Your task to perform on an android device: Add "macbook pro 13 inch" to the cart on costco, then select checkout. Image 0: 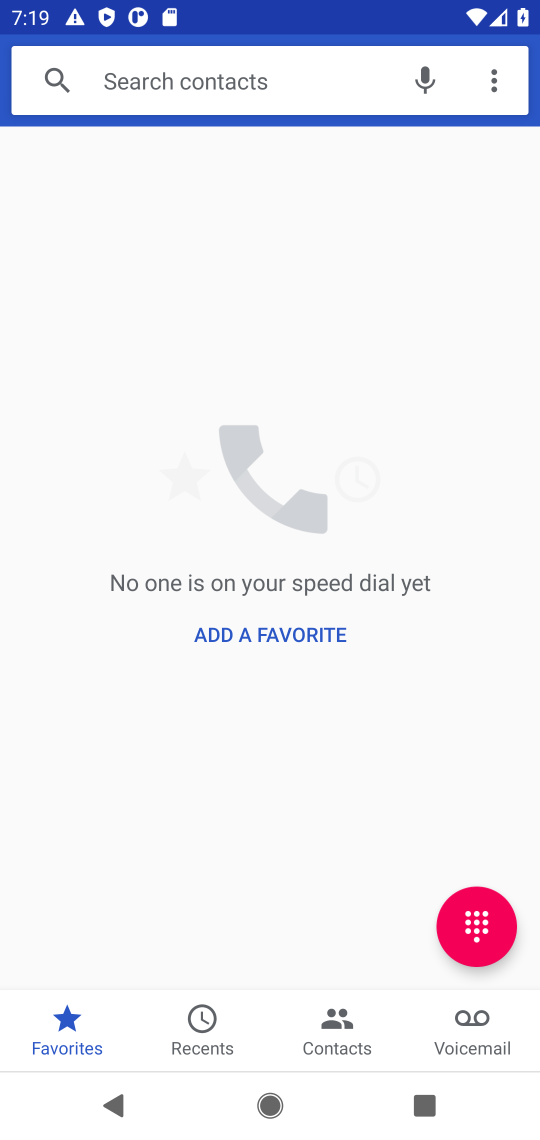
Step 0: press home button
Your task to perform on an android device: Add "macbook pro 13 inch" to the cart on costco, then select checkout. Image 1: 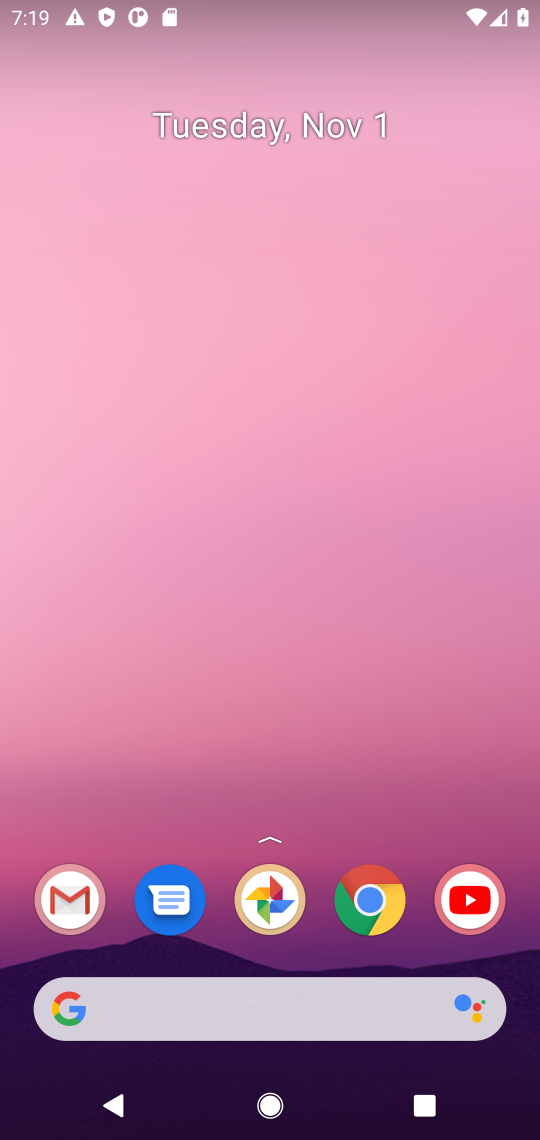
Step 1: drag from (328, 961) to (286, 100)
Your task to perform on an android device: Add "macbook pro 13 inch" to the cart on costco, then select checkout. Image 2: 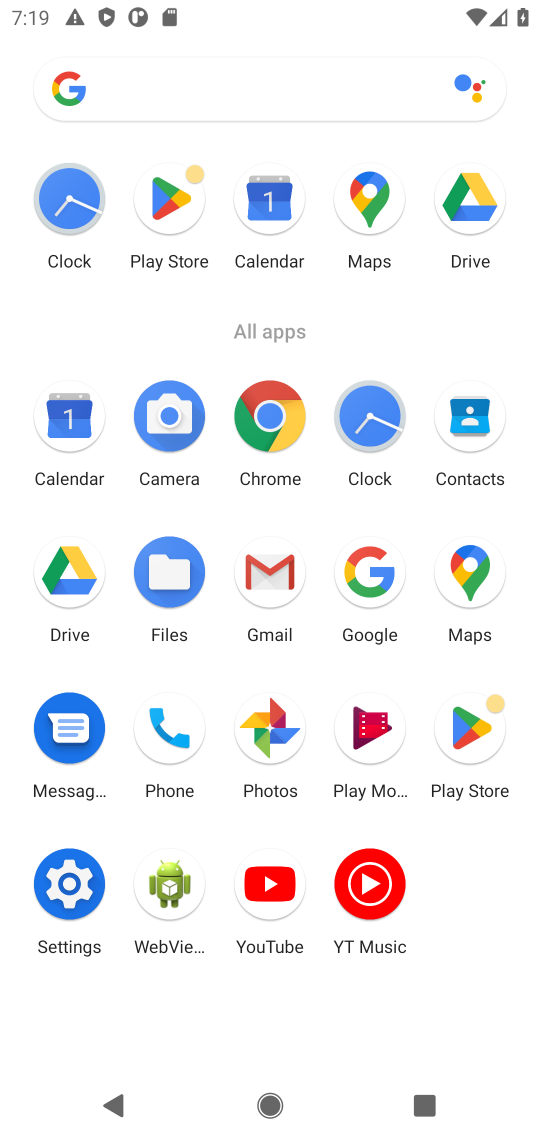
Step 2: click (277, 413)
Your task to perform on an android device: Add "macbook pro 13 inch" to the cart on costco, then select checkout. Image 3: 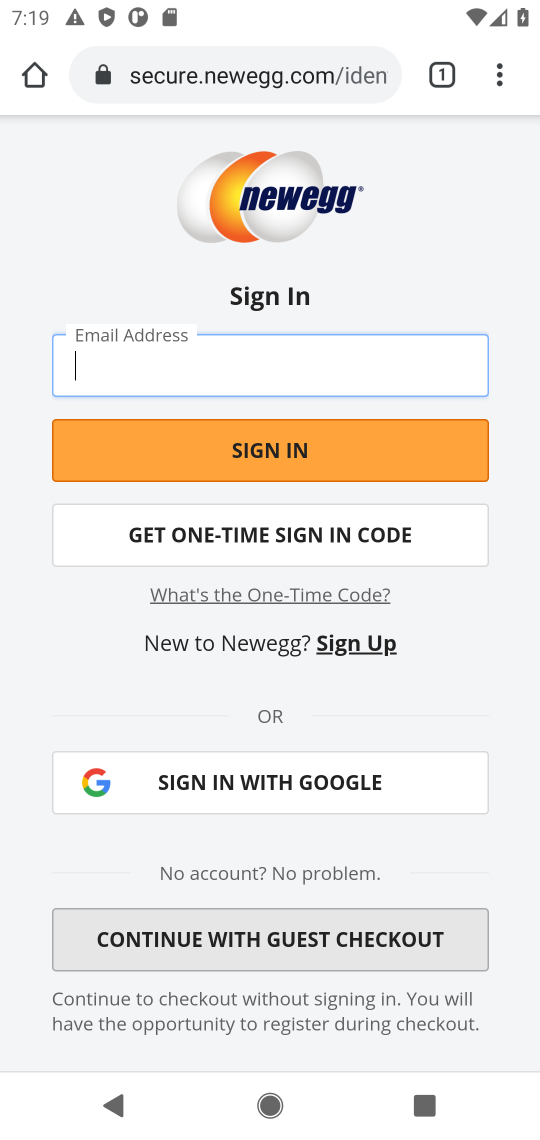
Step 3: click (358, 80)
Your task to perform on an android device: Add "macbook pro 13 inch" to the cart on costco, then select checkout. Image 4: 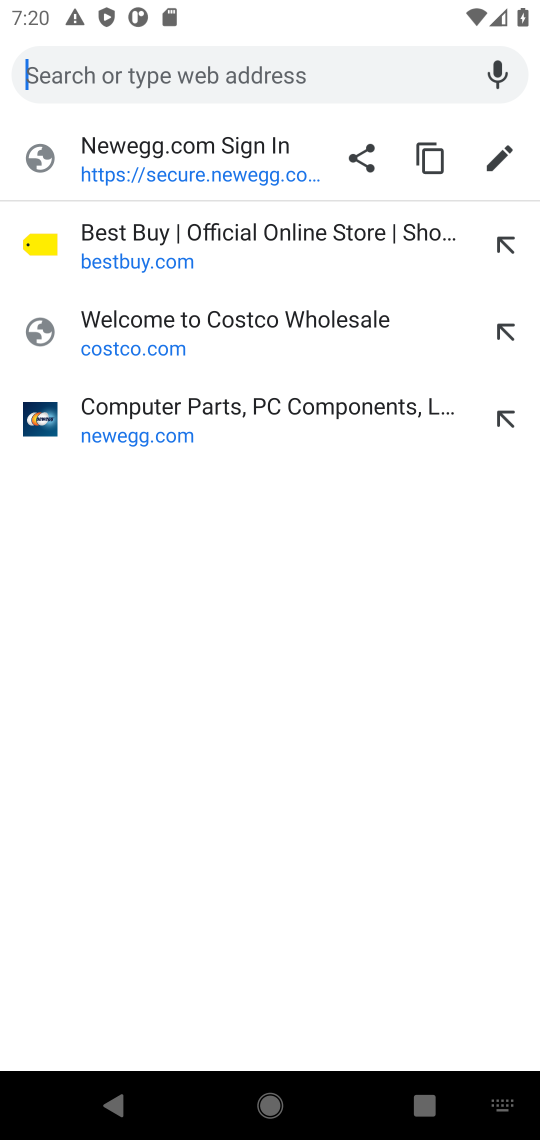
Step 4: type "costco.com"
Your task to perform on an android device: Add "macbook pro 13 inch" to the cart on costco, then select checkout. Image 5: 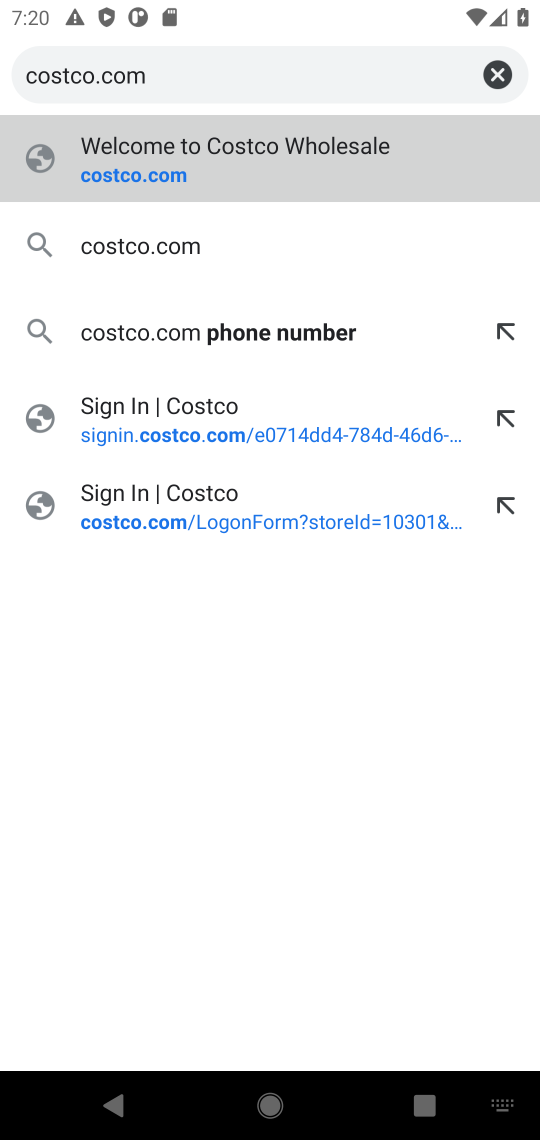
Step 5: press enter
Your task to perform on an android device: Add "macbook pro 13 inch" to the cart on costco, then select checkout. Image 6: 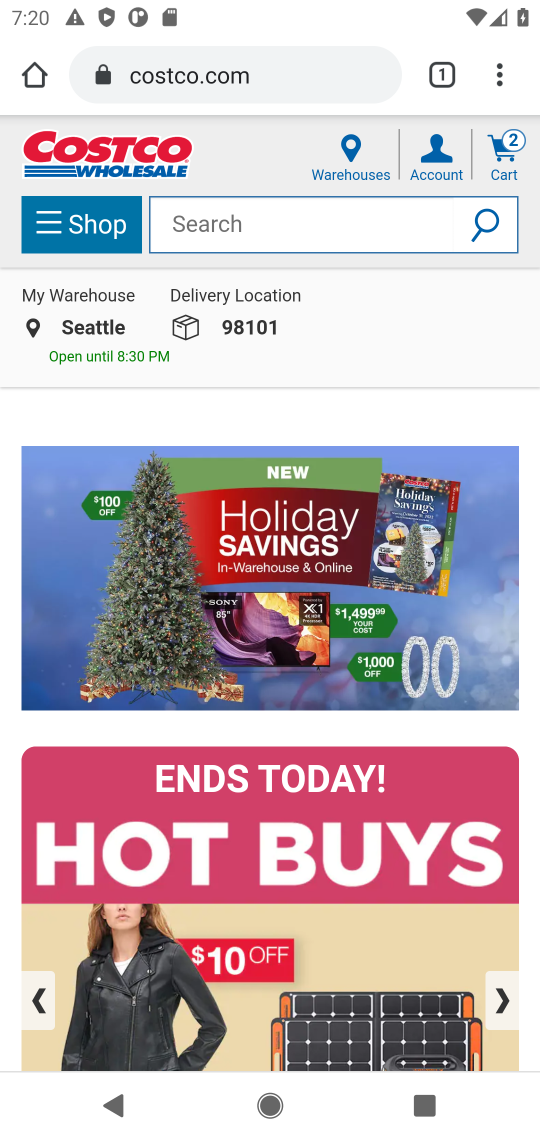
Step 6: click (325, 223)
Your task to perform on an android device: Add "macbook pro 13 inch" to the cart on costco, then select checkout. Image 7: 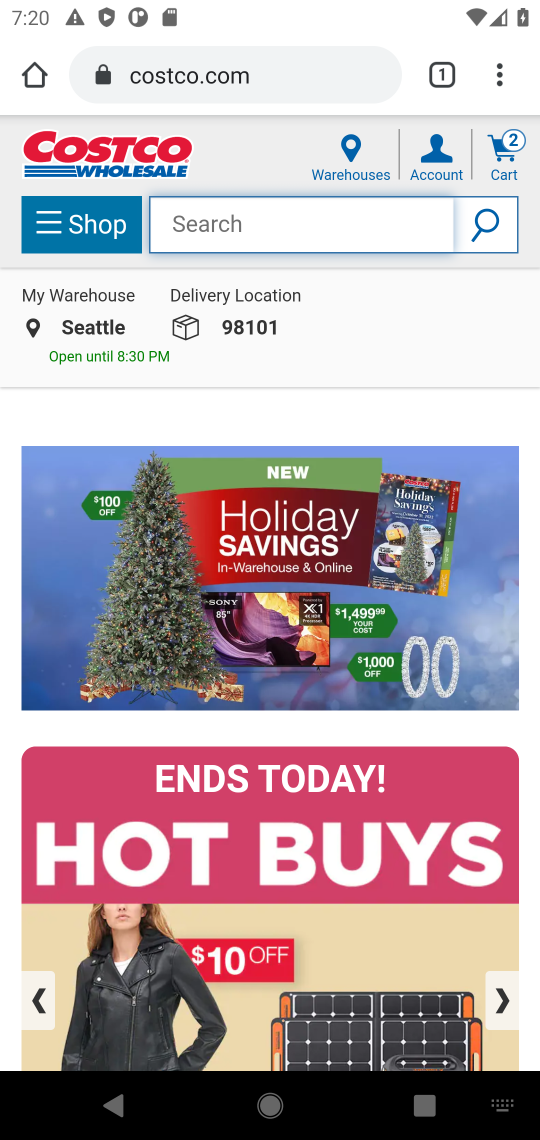
Step 7: type "macbook pro 13 inch"
Your task to perform on an android device: Add "macbook pro 13 inch" to the cart on costco, then select checkout. Image 8: 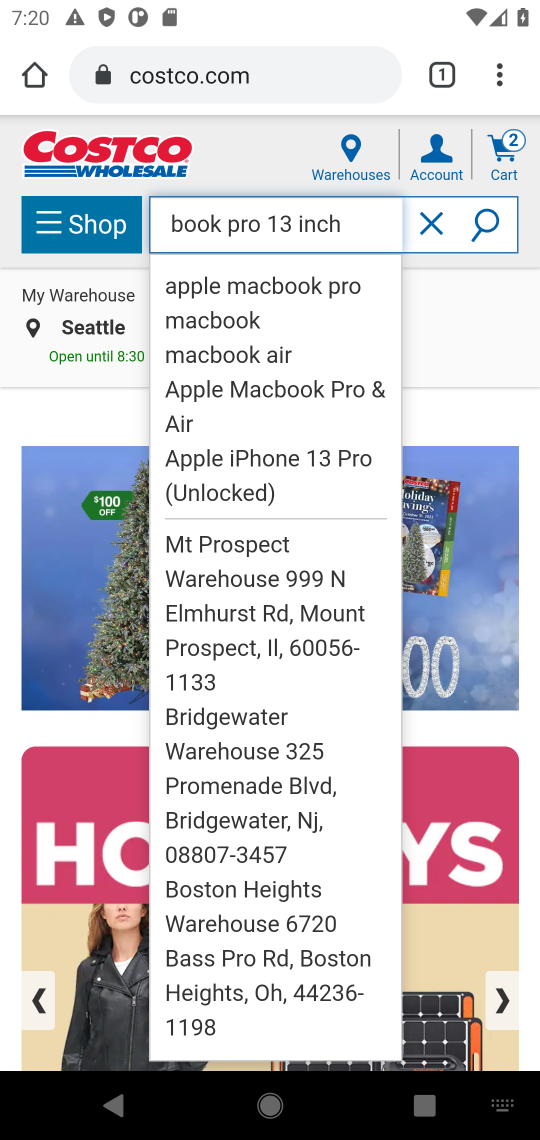
Step 8: press enter
Your task to perform on an android device: Add "macbook pro 13 inch" to the cart on costco, then select checkout. Image 9: 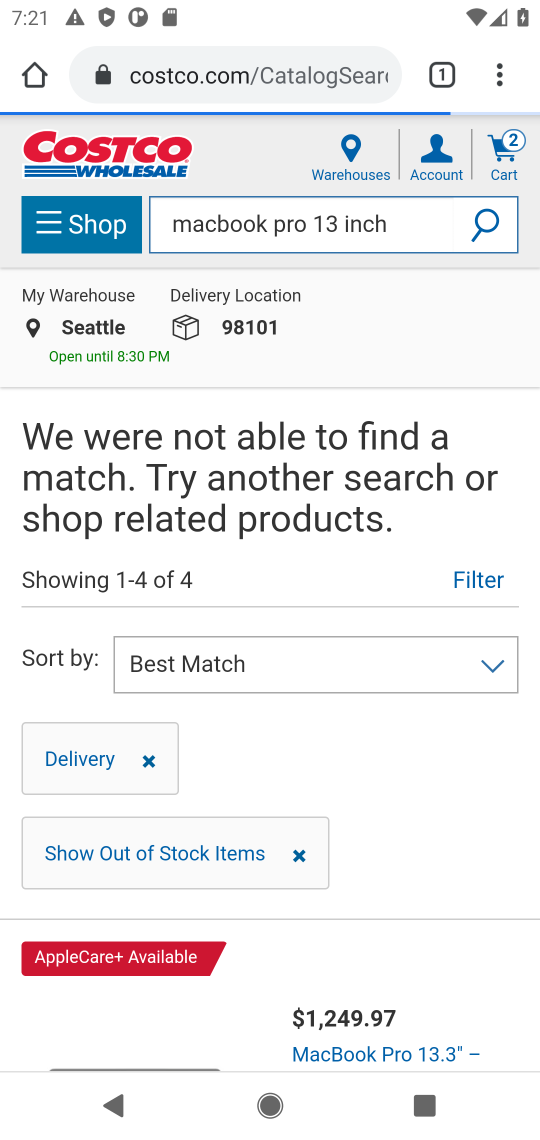
Step 9: task complete